Your task to perform on an android device: Open my contact list Image 0: 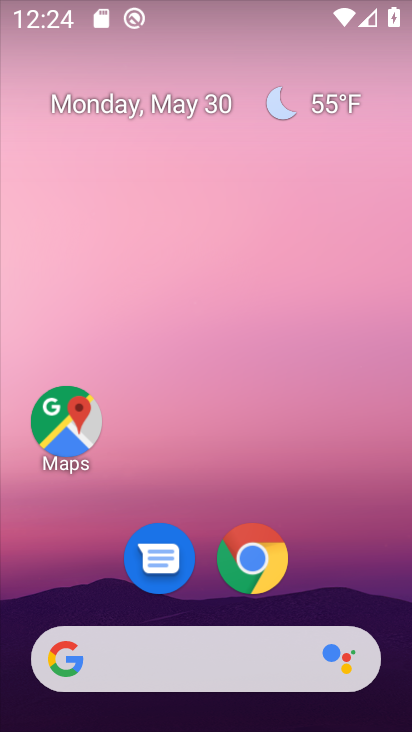
Step 0: drag from (329, 547) to (341, 114)
Your task to perform on an android device: Open my contact list Image 1: 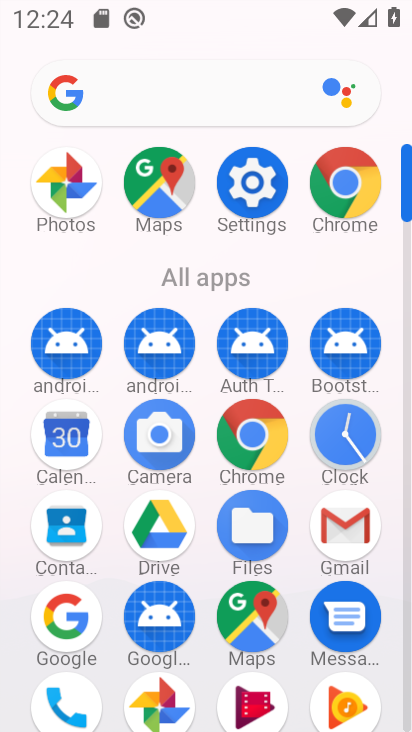
Step 1: drag from (410, 541) to (410, 183)
Your task to perform on an android device: Open my contact list Image 2: 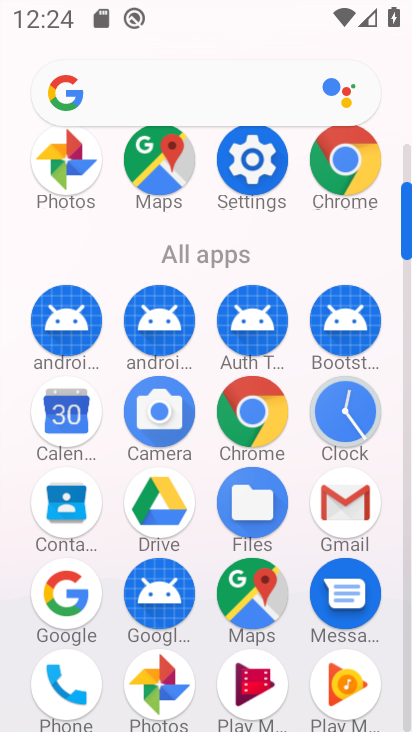
Step 2: click (71, 697)
Your task to perform on an android device: Open my contact list Image 3: 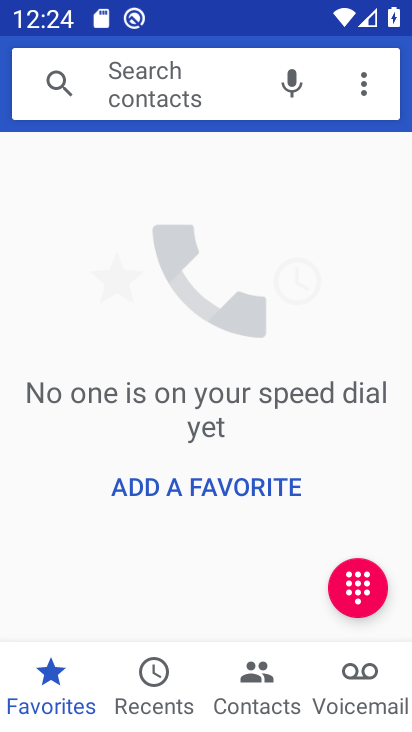
Step 3: click (245, 675)
Your task to perform on an android device: Open my contact list Image 4: 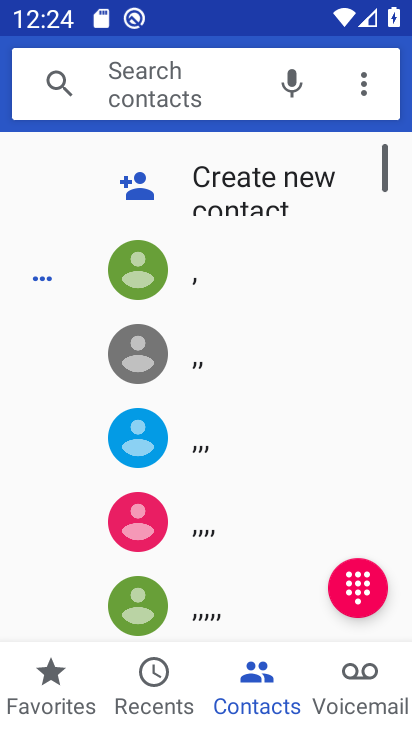
Step 4: task complete